Your task to perform on an android device: Find coffee shops on Maps Image 0: 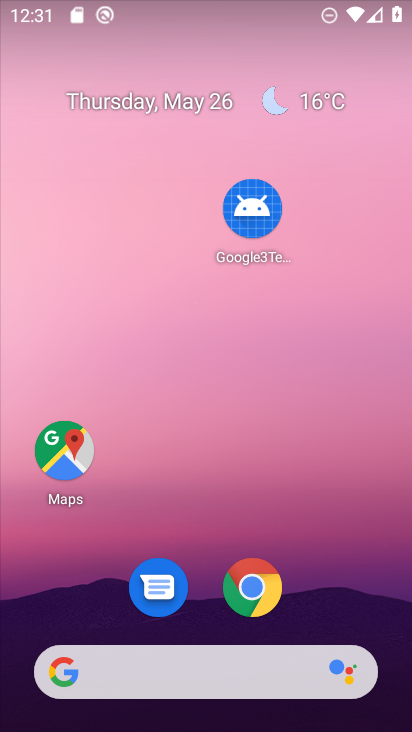
Step 0: click (67, 469)
Your task to perform on an android device: Find coffee shops on Maps Image 1: 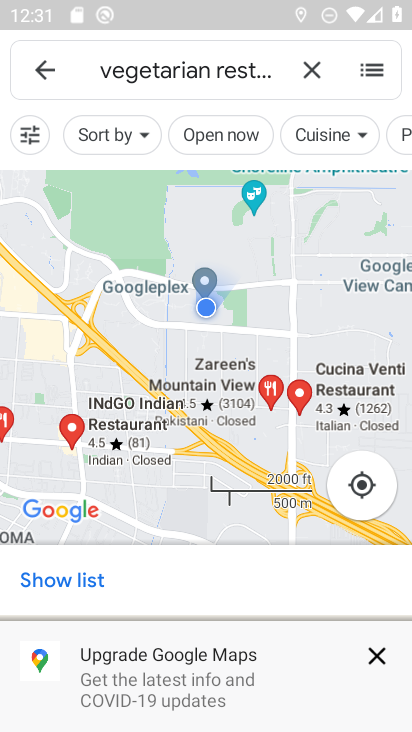
Step 1: click (322, 71)
Your task to perform on an android device: Find coffee shops on Maps Image 2: 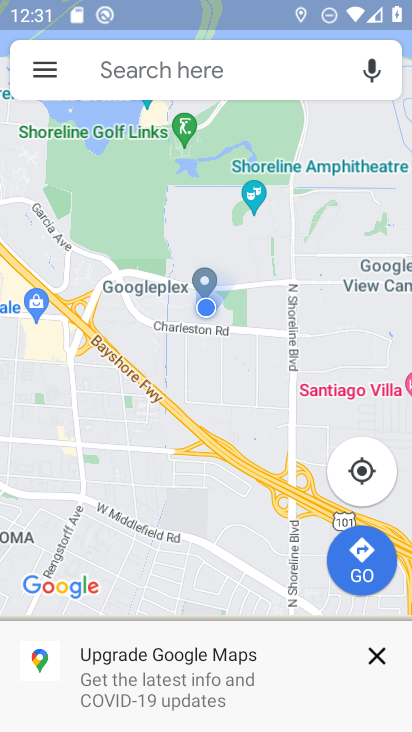
Step 2: click (228, 76)
Your task to perform on an android device: Find coffee shops on Maps Image 3: 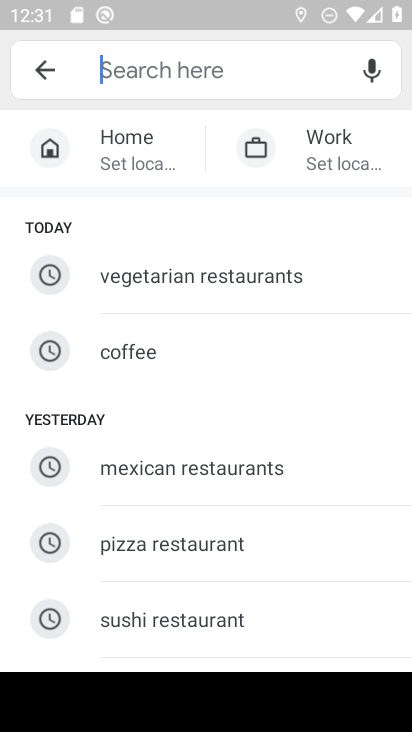
Step 3: type "coffee shops"
Your task to perform on an android device: Find coffee shops on Maps Image 4: 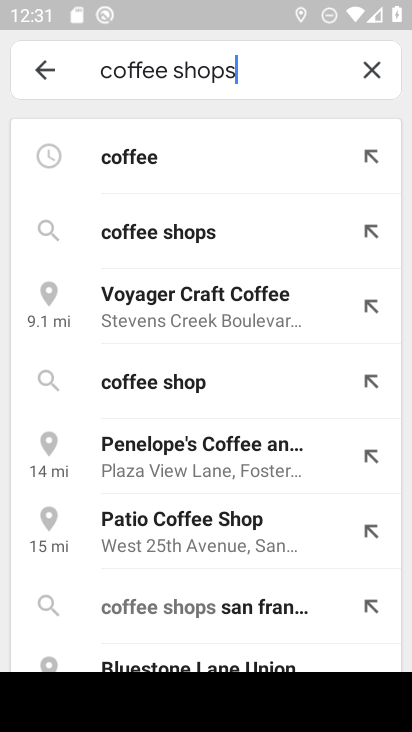
Step 4: click (208, 240)
Your task to perform on an android device: Find coffee shops on Maps Image 5: 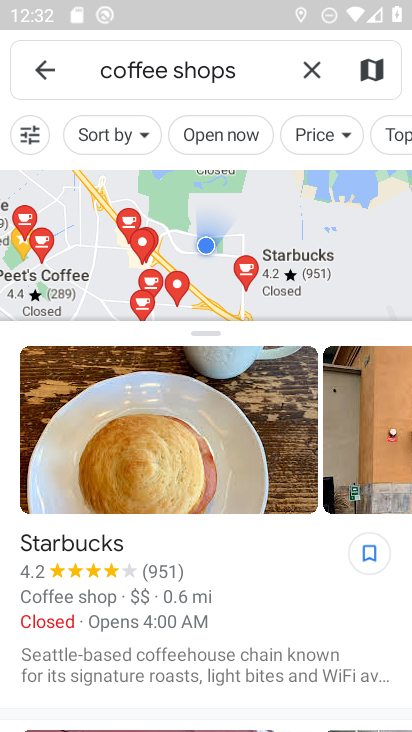
Step 5: task complete